Your task to perform on an android device: Clear all items from cart on walmart.com. Search for lenovo thinkpad on walmart.com, select the first entry, add it to the cart, then select checkout. Image 0: 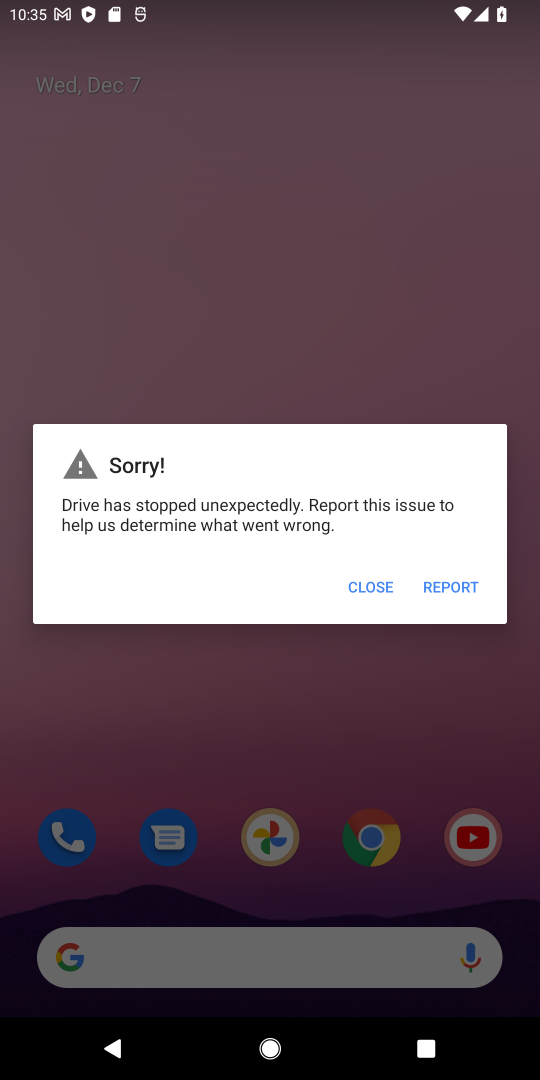
Step 0: press home button
Your task to perform on an android device: Clear all items from cart on walmart.com. Search for lenovo thinkpad on walmart.com, select the first entry, add it to the cart, then select checkout. Image 1: 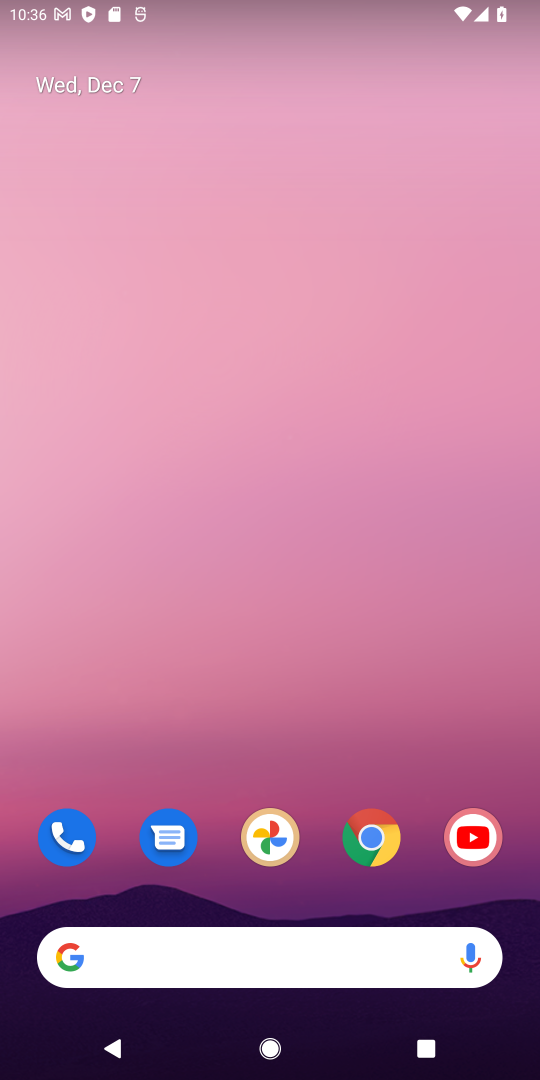
Step 1: click (364, 835)
Your task to perform on an android device: Clear all items from cart on walmart.com. Search for lenovo thinkpad on walmart.com, select the first entry, add it to the cart, then select checkout. Image 2: 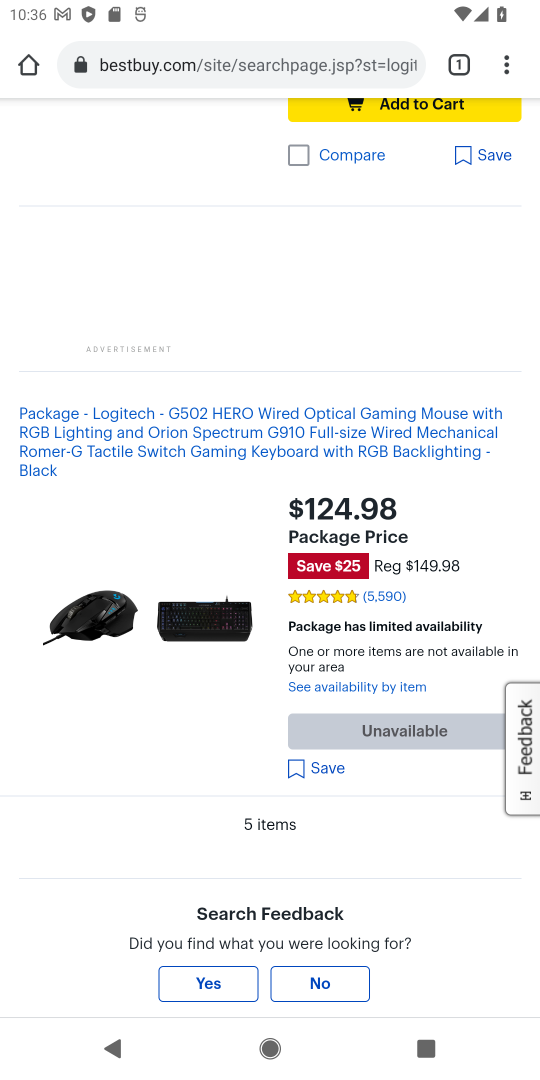
Step 2: click (307, 55)
Your task to perform on an android device: Clear all items from cart on walmart.com. Search for lenovo thinkpad on walmart.com, select the first entry, add it to the cart, then select checkout. Image 3: 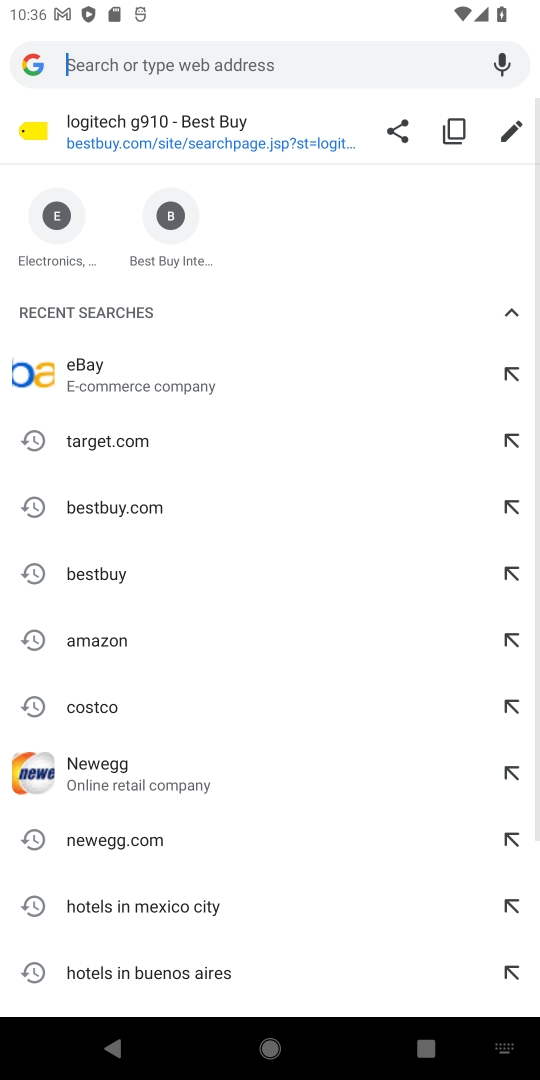
Step 3: type "walmart.com"
Your task to perform on an android device: Clear all items from cart on walmart.com. Search for lenovo thinkpad on walmart.com, select the first entry, add it to the cart, then select checkout. Image 4: 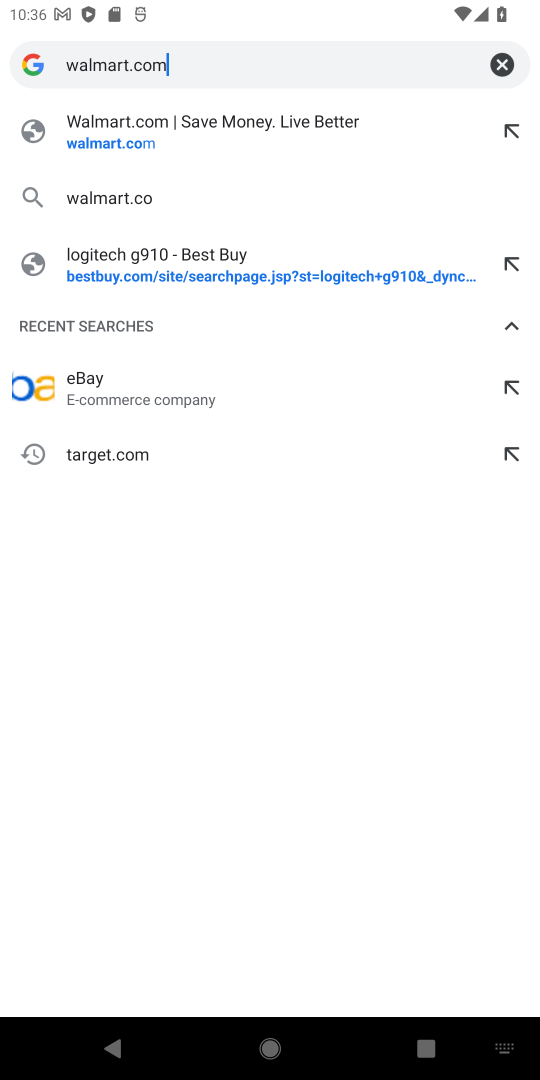
Step 4: press enter
Your task to perform on an android device: Clear all items from cart on walmart.com. Search for lenovo thinkpad on walmart.com, select the first entry, add it to the cart, then select checkout. Image 5: 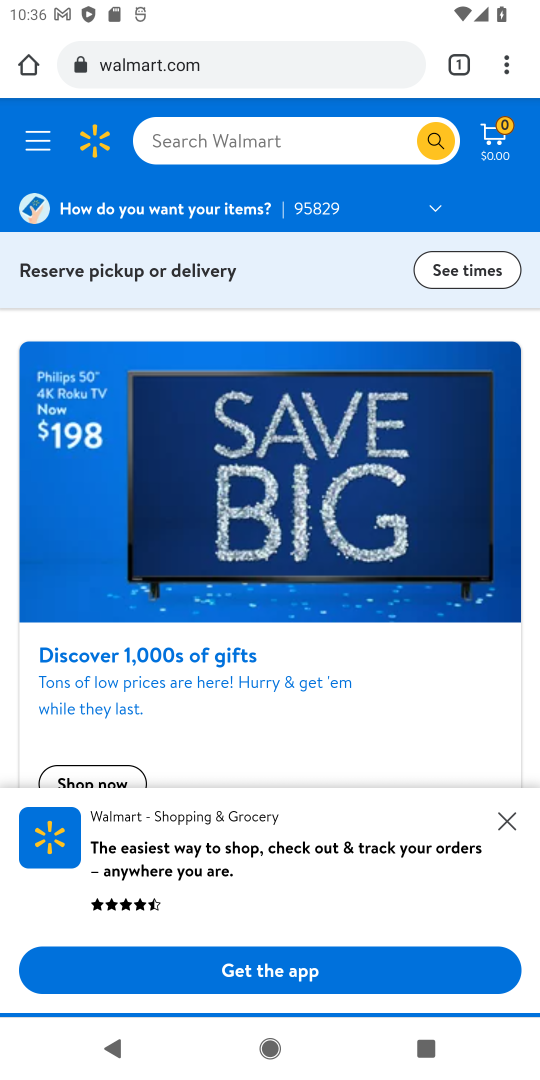
Step 5: click (493, 148)
Your task to perform on an android device: Clear all items from cart on walmart.com. Search for lenovo thinkpad on walmart.com, select the first entry, add it to the cart, then select checkout. Image 6: 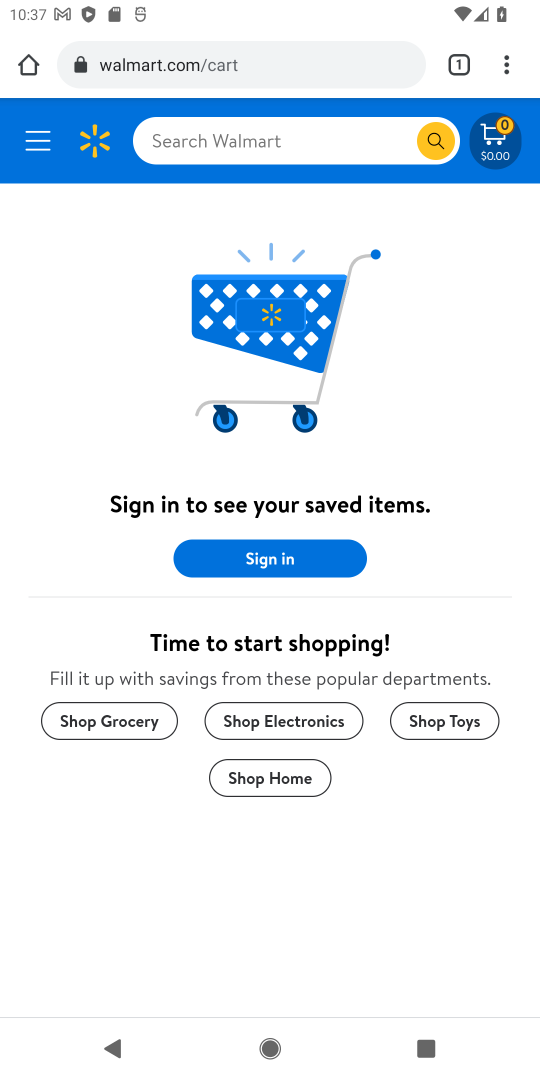
Step 6: click (285, 137)
Your task to perform on an android device: Clear all items from cart on walmart.com. Search for lenovo thinkpad on walmart.com, select the first entry, add it to the cart, then select checkout. Image 7: 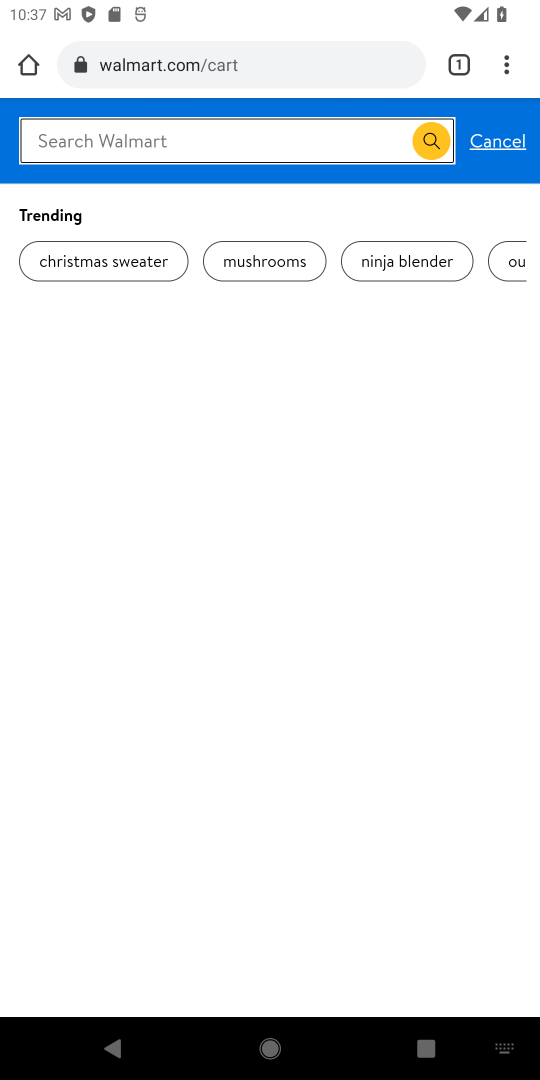
Step 7: type "lenovo thinkpad"
Your task to perform on an android device: Clear all items from cart on walmart.com. Search for lenovo thinkpad on walmart.com, select the first entry, add it to the cart, then select checkout. Image 8: 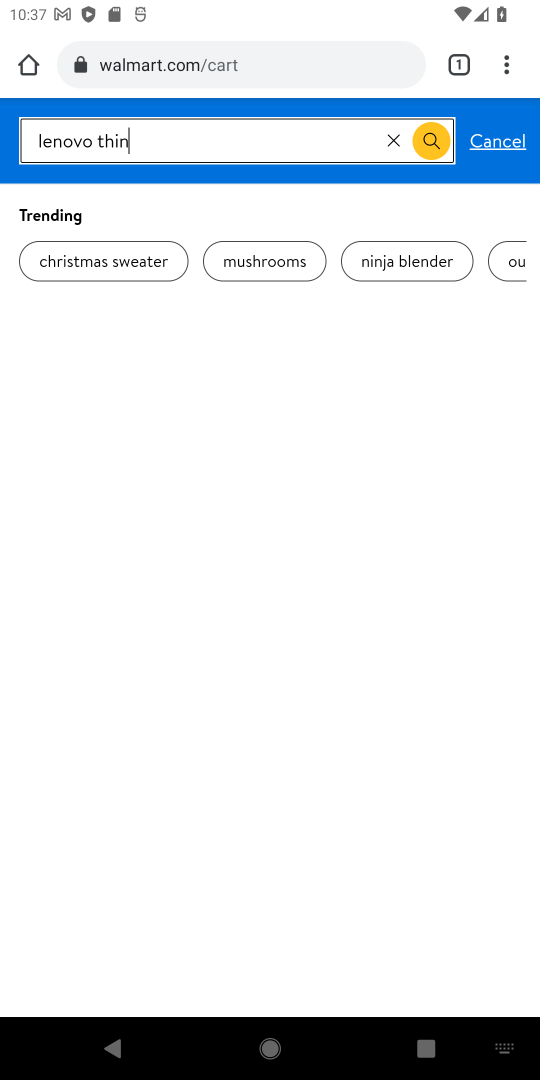
Step 8: press enter
Your task to perform on an android device: Clear all items from cart on walmart.com. Search for lenovo thinkpad on walmart.com, select the first entry, add it to the cart, then select checkout. Image 9: 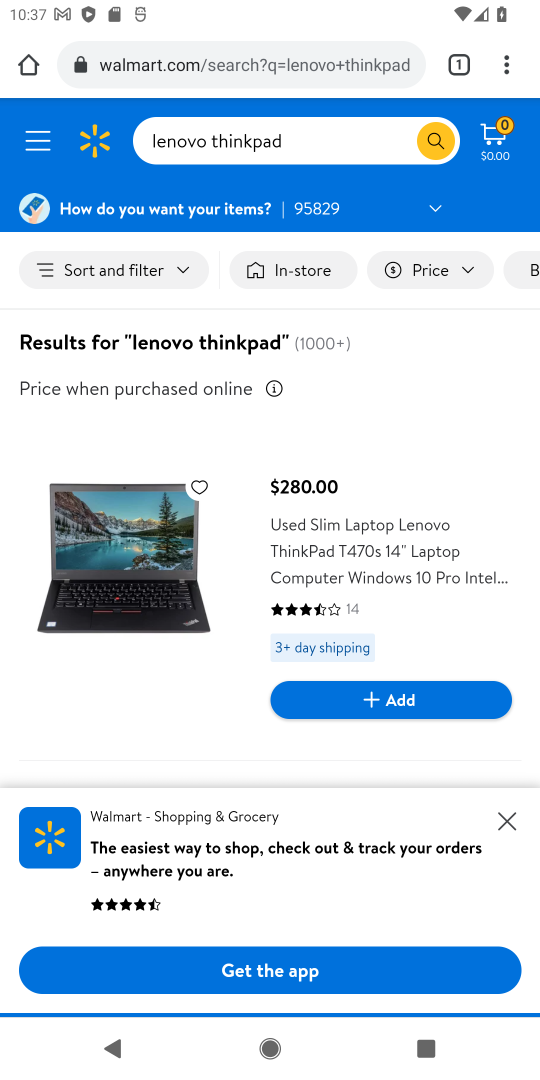
Step 9: click (507, 818)
Your task to perform on an android device: Clear all items from cart on walmart.com. Search for lenovo thinkpad on walmart.com, select the first entry, add it to the cart, then select checkout. Image 10: 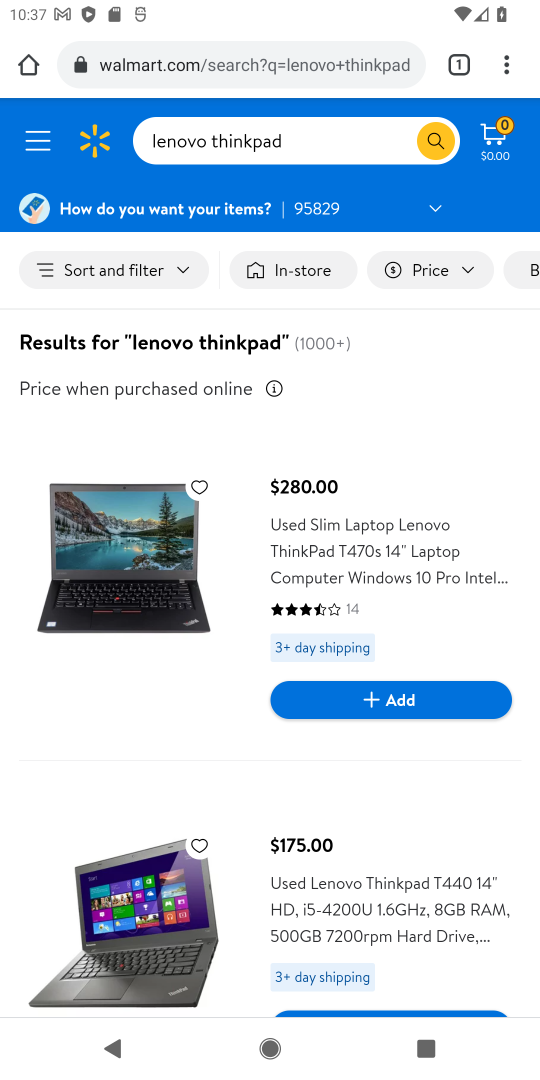
Step 10: drag from (425, 709) to (486, 249)
Your task to perform on an android device: Clear all items from cart on walmart.com. Search for lenovo thinkpad on walmart.com, select the first entry, add it to the cart, then select checkout. Image 11: 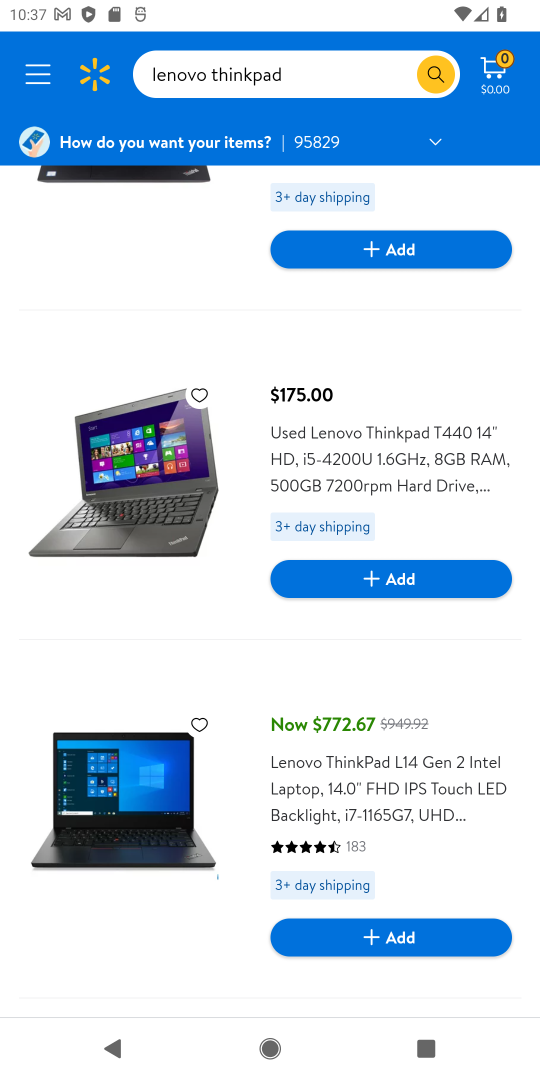
Step 11: click (123, 814)
Your task to perform on an android device: Clear all items from cart on walmart.com. Search for lenovo thinkpad on walmart.com, select the first entry, add it to the cart, then select checkout. Image 12: 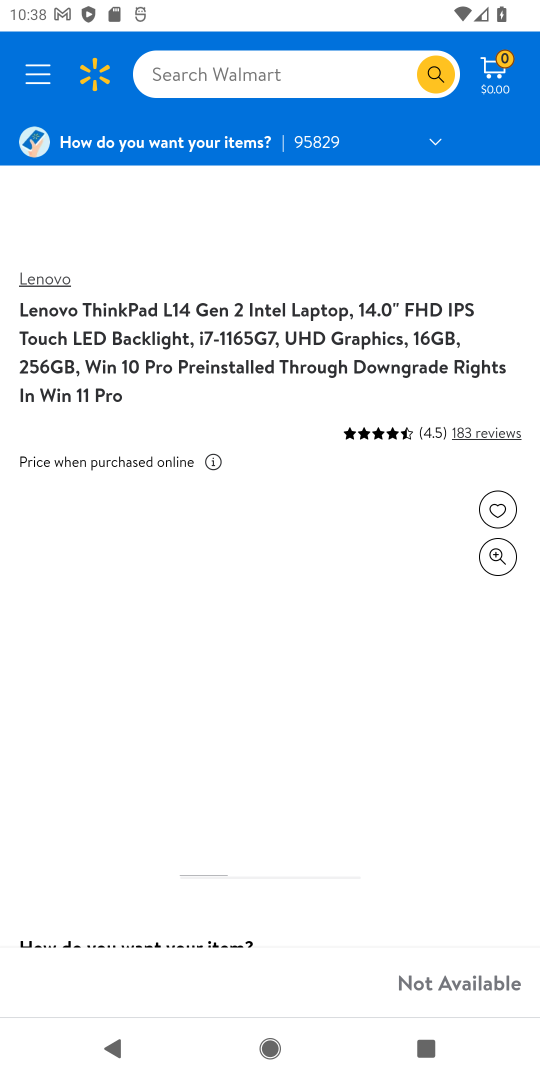
Step 12: drag from (417, 675) to (440, 301)
Your task to perform on an android device: Clear all items from cart on walmart.com. Search for lenovo thinkpad on walmart.com, select the first entry, add it to the cart, then select checkout. Image 13: 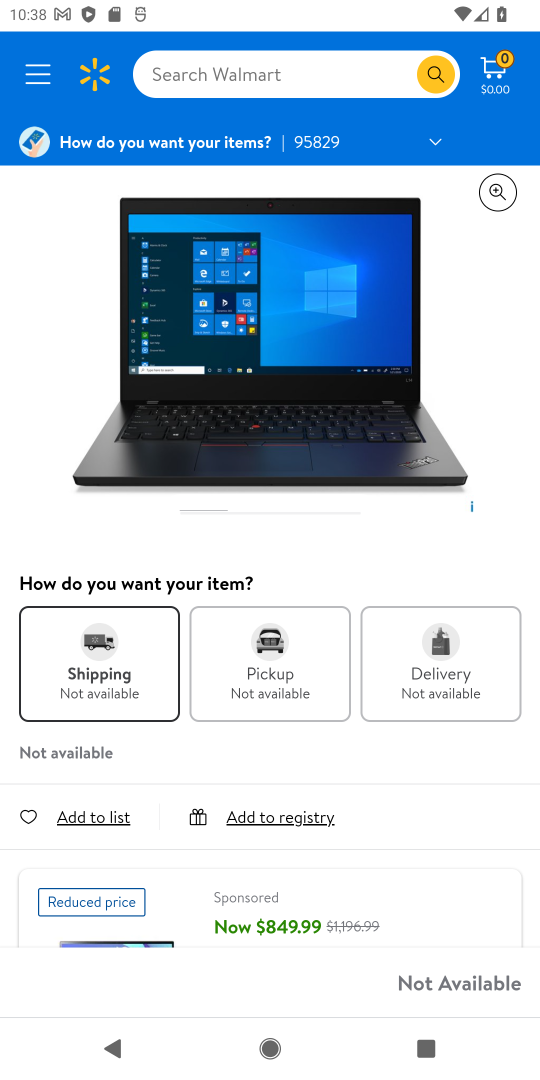
Step 13: drag from (466, 819) to (423, 271)
Your task to perform on an android device: Clear all items from cart on walmart.com. Search for lenovo thinkpad on walmart.com, select the first entry, add it to the cart, then select checkout. Image 14: 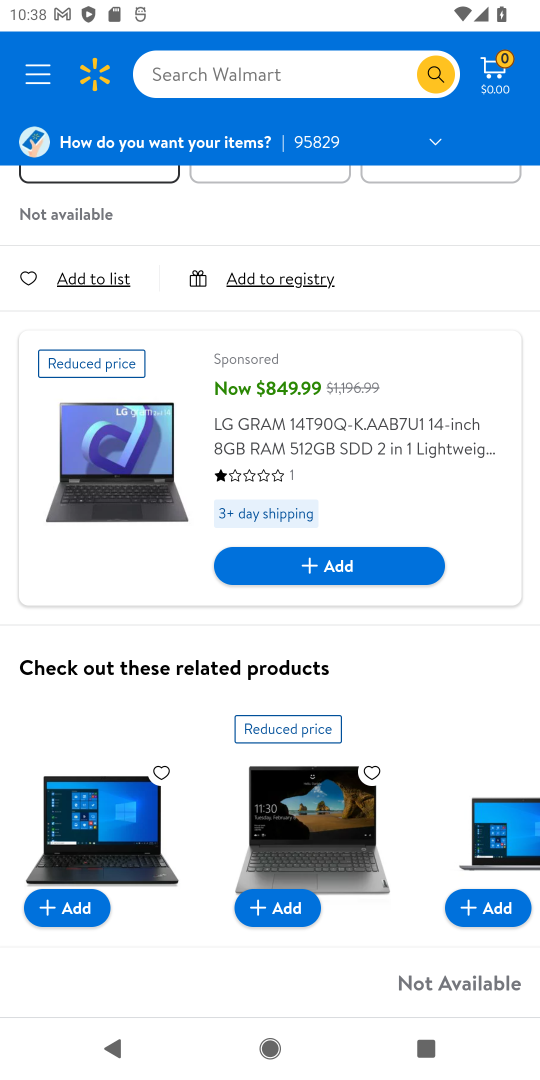
Step 14: press back button
Your task to perform on an android device: Clear all items from cart on walmart.com. Search for lenovo thinkpad on walmart.com, select the first entry, add it to the cart, then select checkout. Image 15: 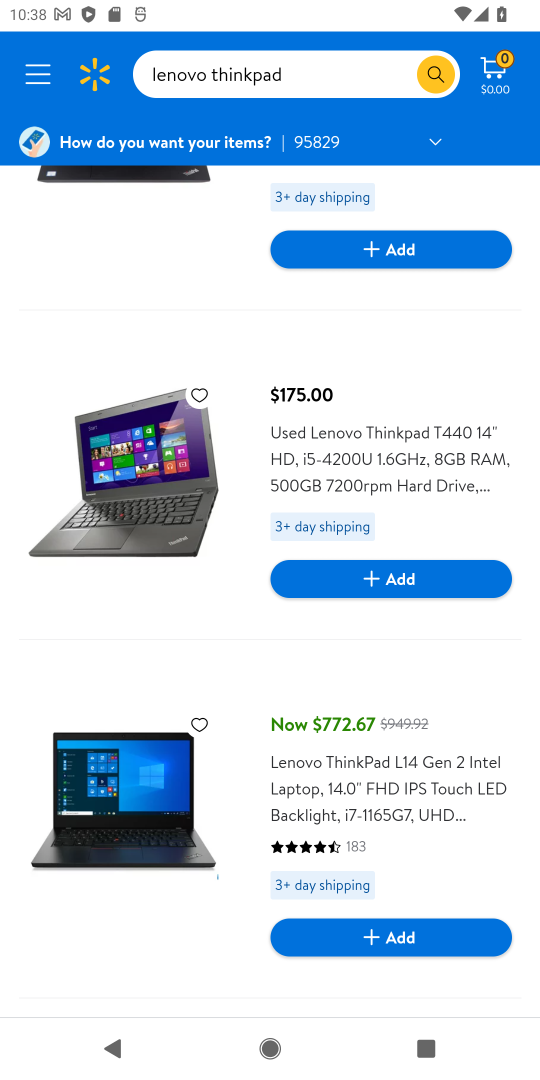
Step 15: drag from (311, 347) to (380, 783)
Your task to perform on an android device: Clear all items from cart on walmart.com. Search for lenovo thinkpad on walmart.com, select the first entry, add it to the cart, then select checkout. Image 16: 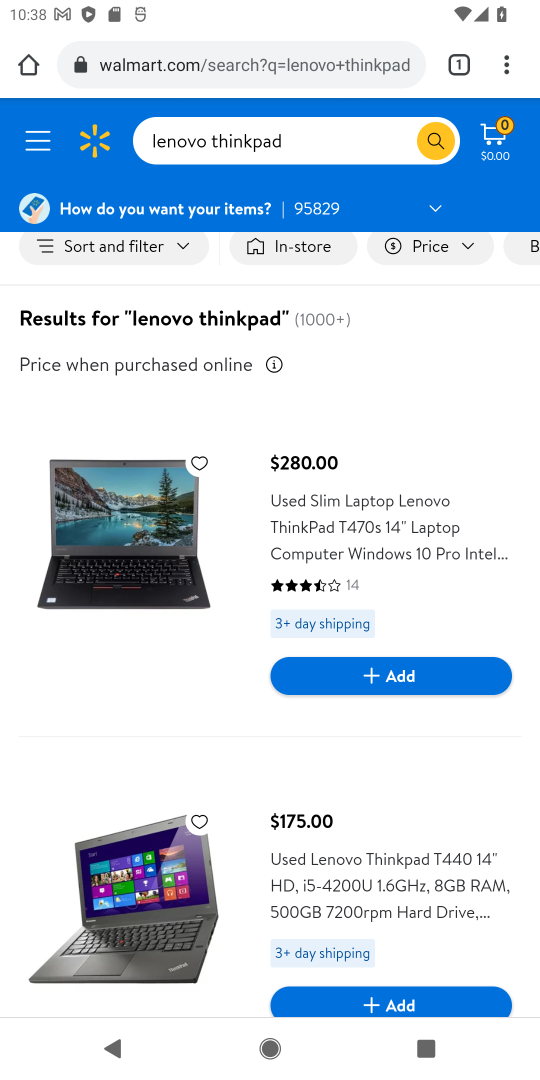
Step 16: click (102, 883)
Your task to perform on an android device: Clear all items from cart on walmart.com. Search for lenovo thinkpad on walmart.com, select the first entry, add it to the cart, then select checkout. Image 17: 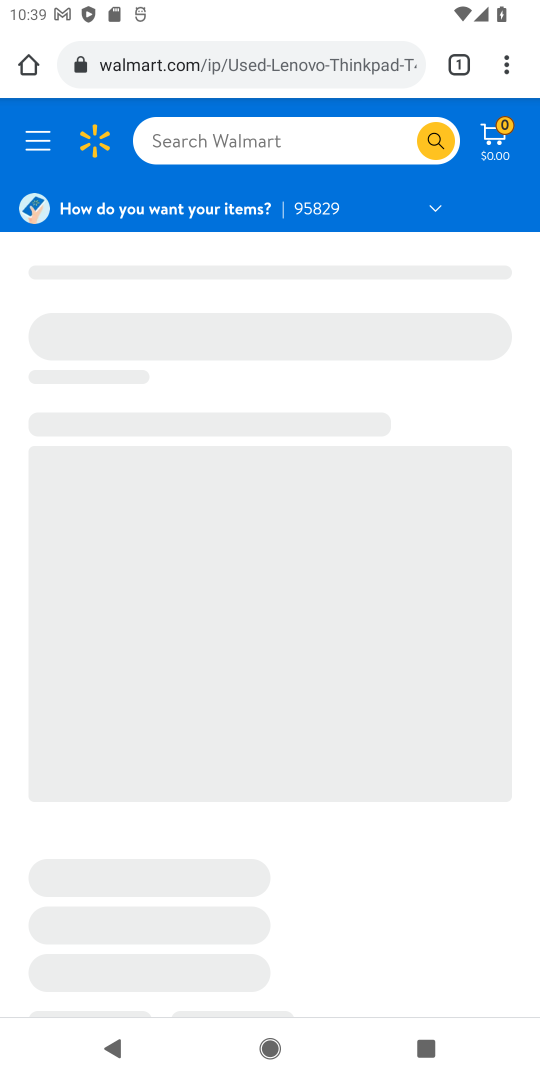
Step 17: press back button
Your task to perform on an android device: Clear all items from cart on walmart.com. Search for lenovo thinkpad on walmart.com, select the first entry, add it to the cart, then select checkout. Image 18: 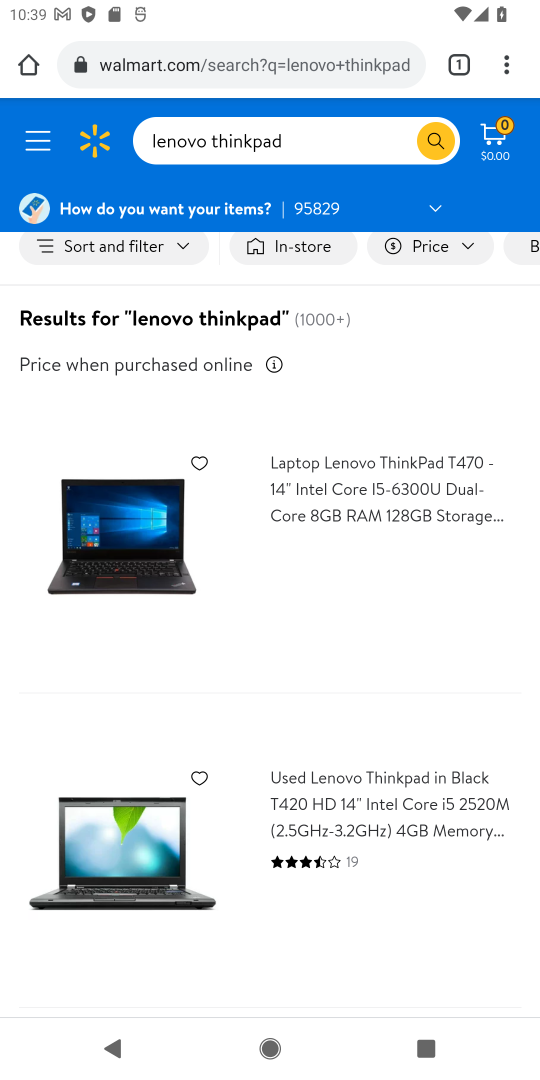
Step 18: click (126, 538)
Your task to perform on an android device: Clear all items from cart on walmart.com. Search for lenovo thinkpad on walmart.com, select the first entry, add it to the cart, then select checkout. Image 19: 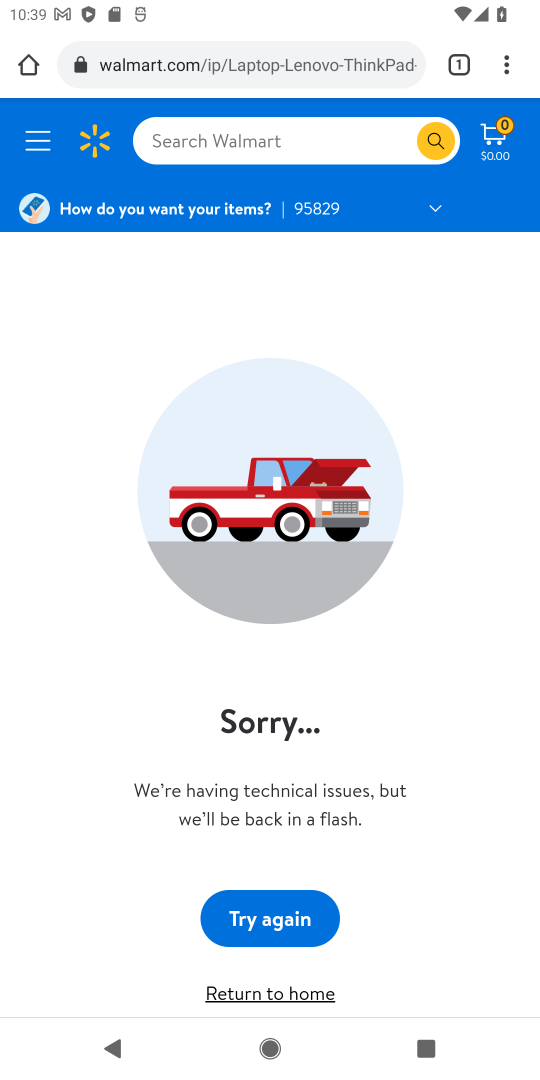
Step 19: task complete